Your task to perform on an android device: open app "WhatsApp Messenger" (install if not already installed) Image 0: 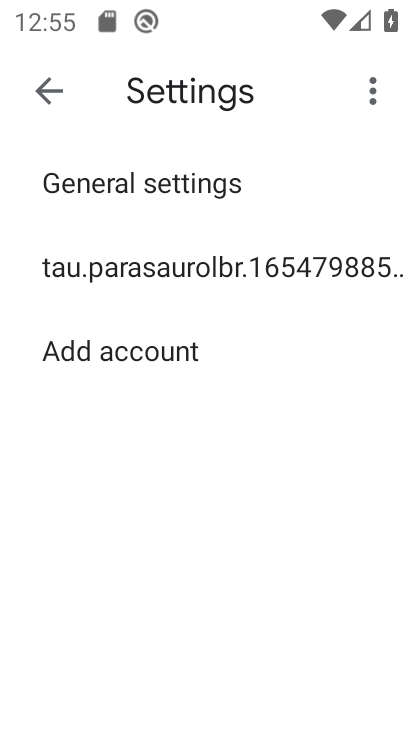
Step 0: press home button
Your task to perform on an android device: open app "WhatsApp Messenger" (install if not already installed) Image 1: 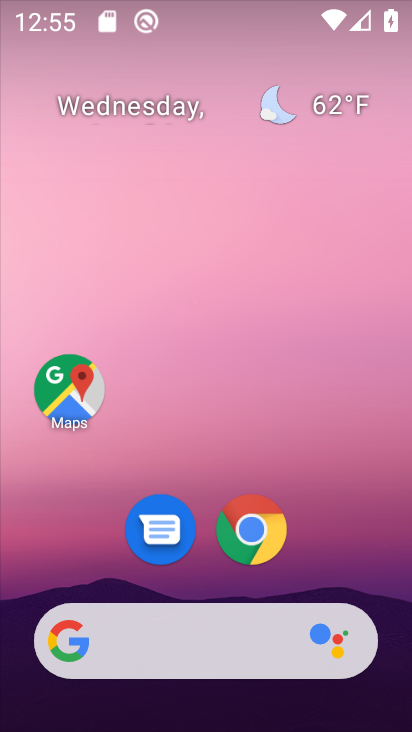
Step 1: drag from (202, 551) to (217, 122)
Your task to perform on an android device: open app "WhatsApp Messenger" (install if not already installed) Image 2: 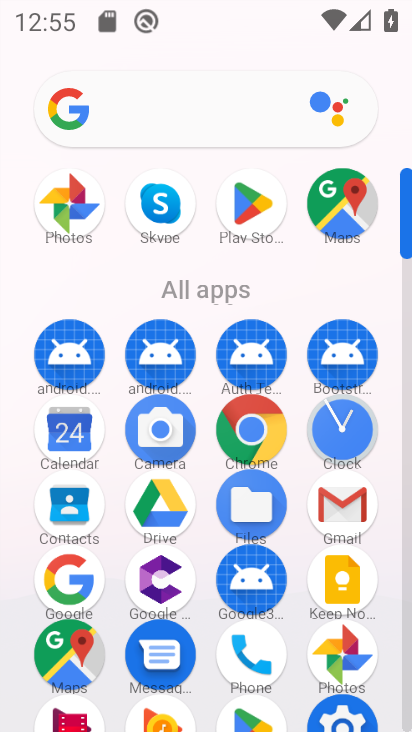
Step 2: click (235, 207)
Your task to perform on an android device: open app "WhatsApp Messenger" (install if not already installed) Image 3: 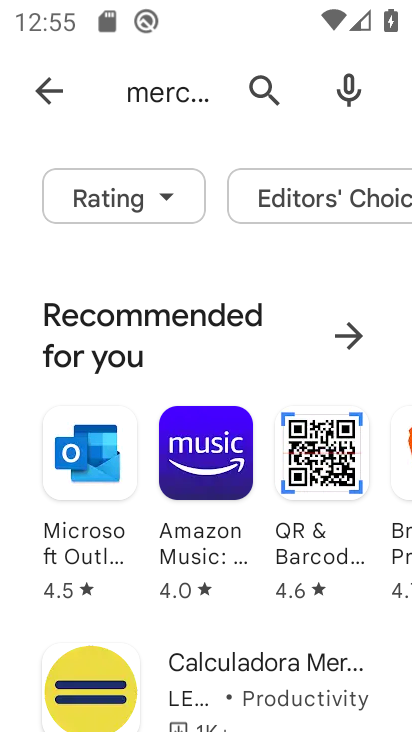
Step 3: click (45, 90)
Your task to perform on an android device: open app "WhatsApp Messenger" (install if not already installed) Image 4: 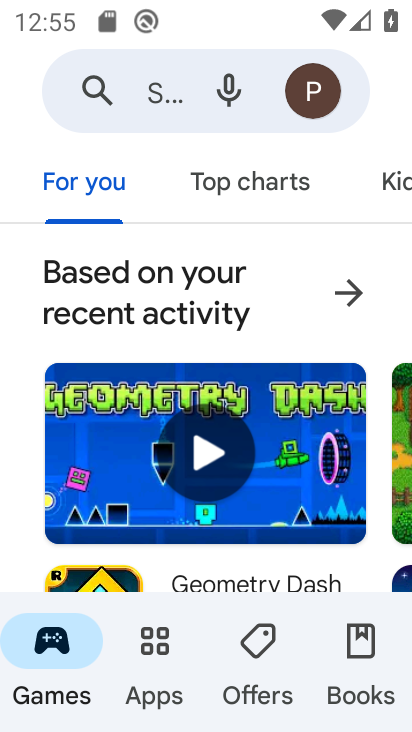
Step 4: click (150, 88)
Your task to perform on an android device: open app "WhatsApp Messenger" (install if not already installed) Image 5: 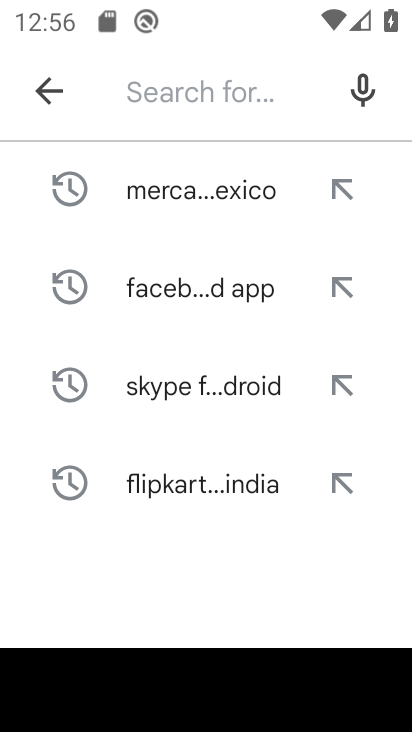
Step 5: type "WhatsApp Messenger "
Your task to perform on an android device: open app "WhatsApp Messenger" (install if not already installed) Image 6: 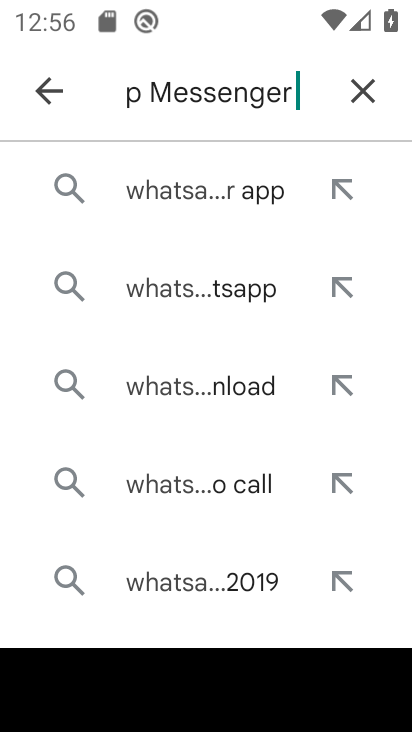
Step 6: click (214, 178)
Your task to perform on an android device: open app "WhatsApp Messenger" (install if not already installed) Image 7: 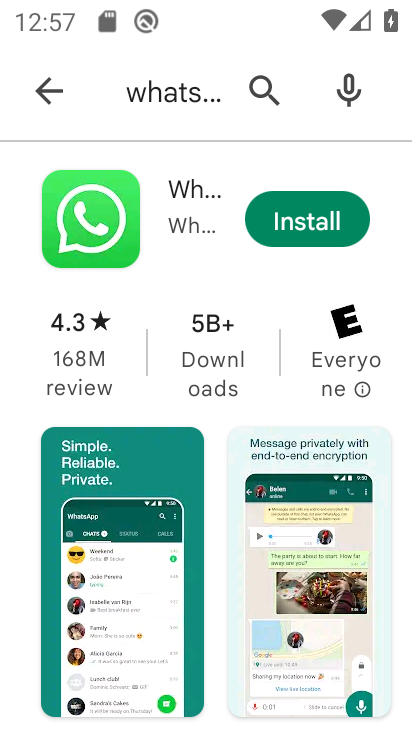
Step 7: click (318, 207)
Your task to perform on an android device: open app "WhatsApp Messenger" (install if not already installed) Image 8: 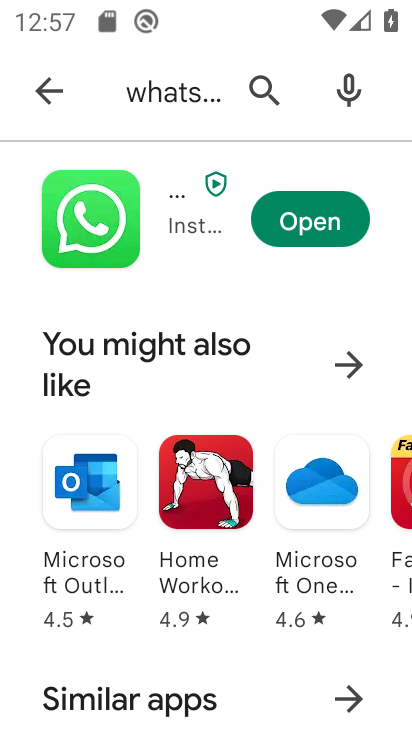
Step 8: task complete